Your task to perform on an android device: Open network settings Image 0: 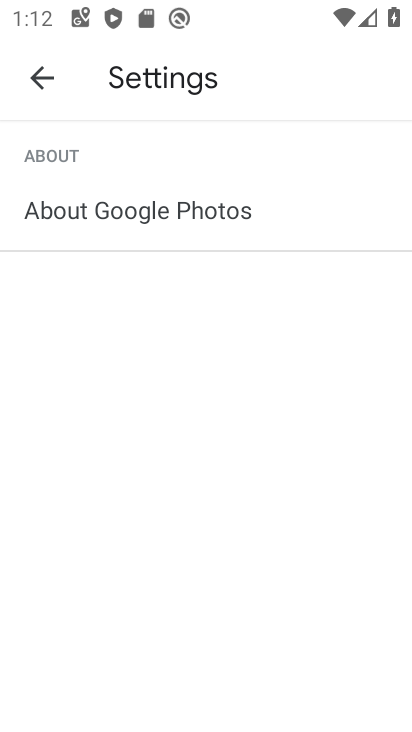
Step 0: press home button
Your task to perform on an android device: Open network settings Image 1: 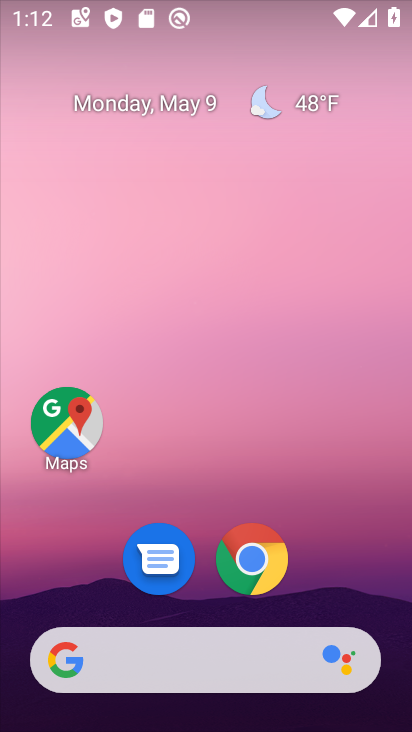
Step 1: drag from (348, 487) to (350, 237)
Your task to perform on an android device: Open network settings Image 2: 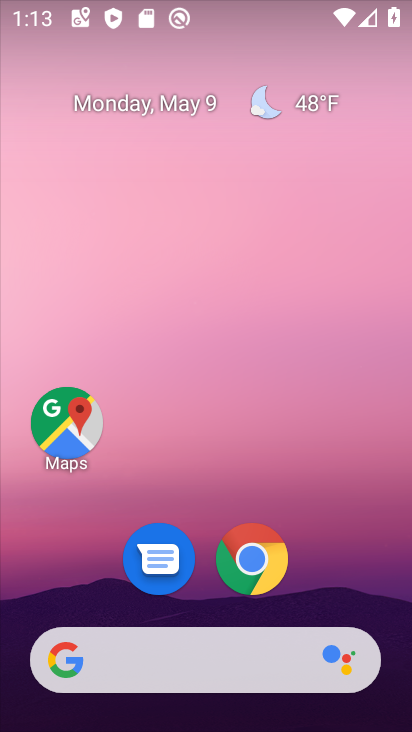
Step 2: drag from (331, 578) to (362, 323)
Your task to perform on an android device: Open network settings Image 3: 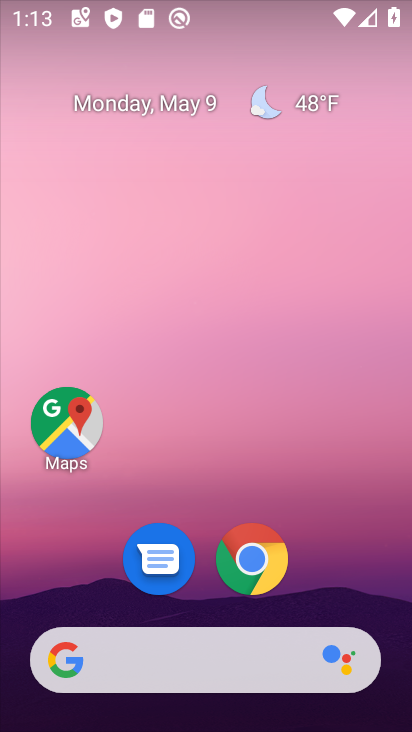
Step 3: drag from (328, 585) to (348, 271)
Your task to perform on an android device: Open network settings Image 4: 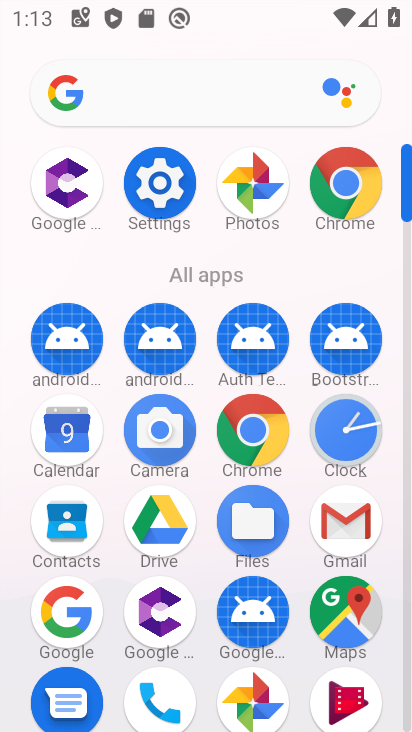
Step 4: click (153, 181)
Your task to perform on an android device: Open network settings Image 5: 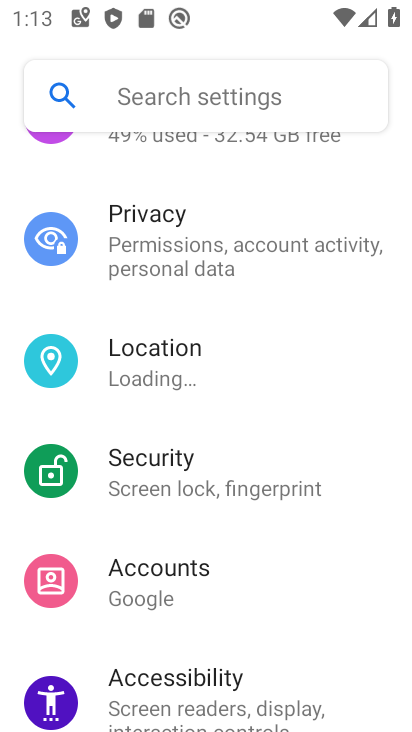
Step 5: drag from (218, 182) to (220, 677)
Your task to perform on an android device: Open network settings Image 6: 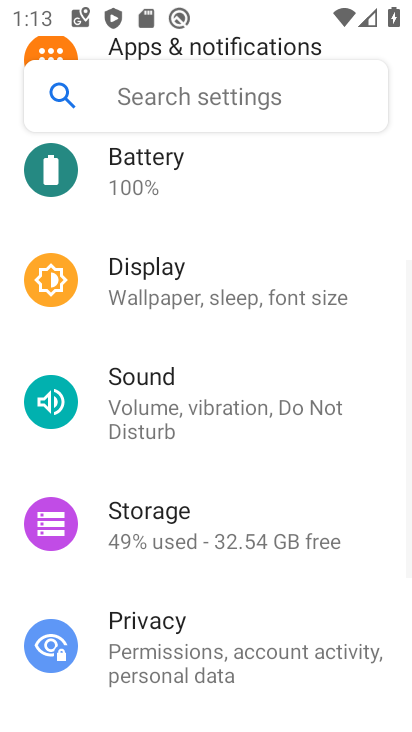
Step 6: drag from (232, 194) to (228, 646)
Your task to perform on an android device: Open network settings Image 7: 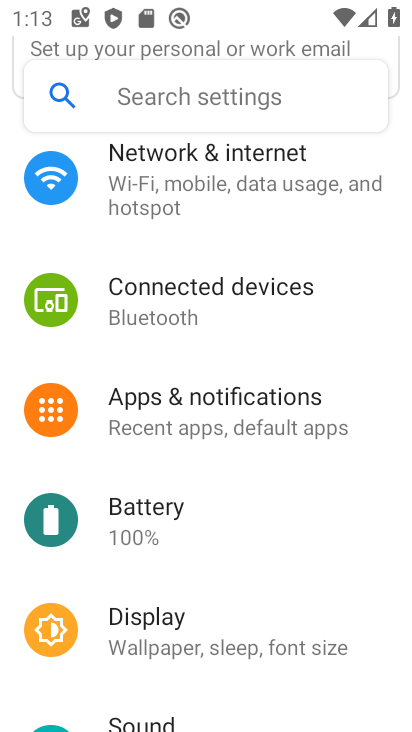
Step 7: click (233, 180)
Your task to perform on an android device: Open network settings Image 8: 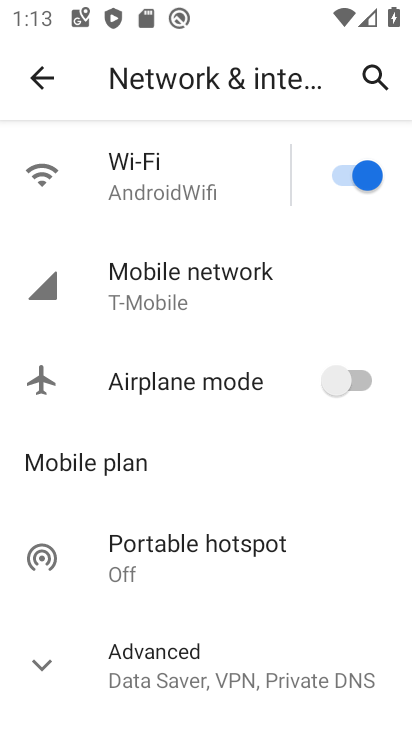
Step 8: task complete